Your task to perform on an android device: Go to accessibility settings Image 0: 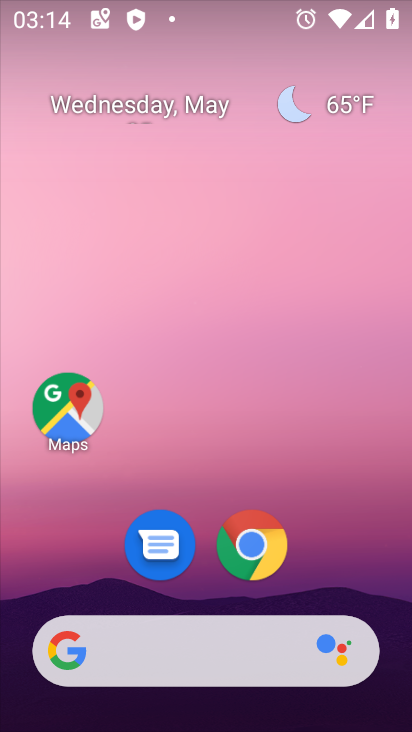
Step 0: drag from (362, 540) to (171, 79)
Your task to perform on an android device: Go to accessibility settings Image 1: 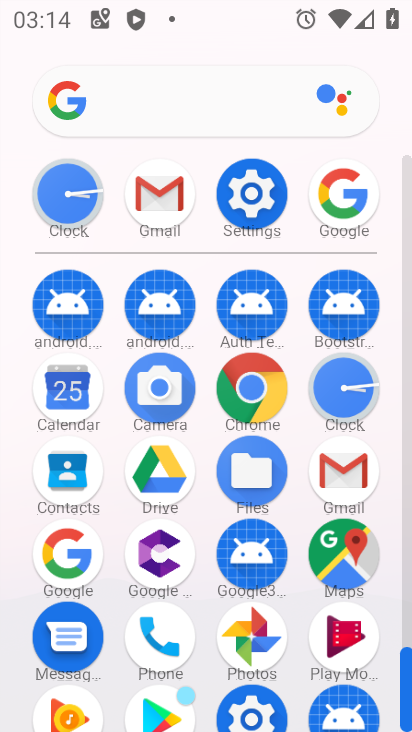
Step 1: click (253, 213)
Your task to perform on an android device: Go to accessibility settings Image 2: 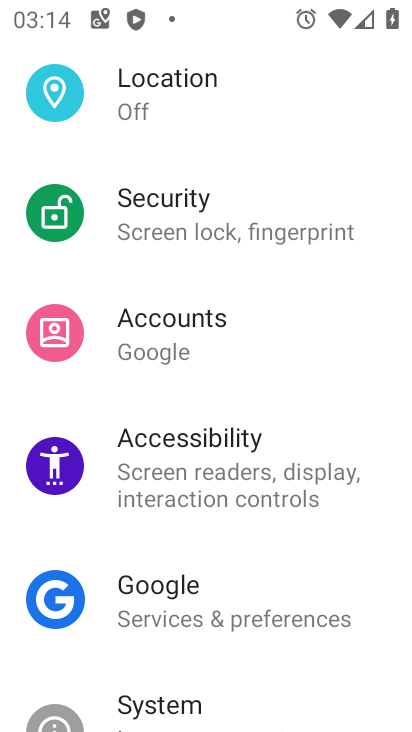
Step 2: click (246, 455)
Your task to perform on an android device: Go to accessibility settings Image 3: 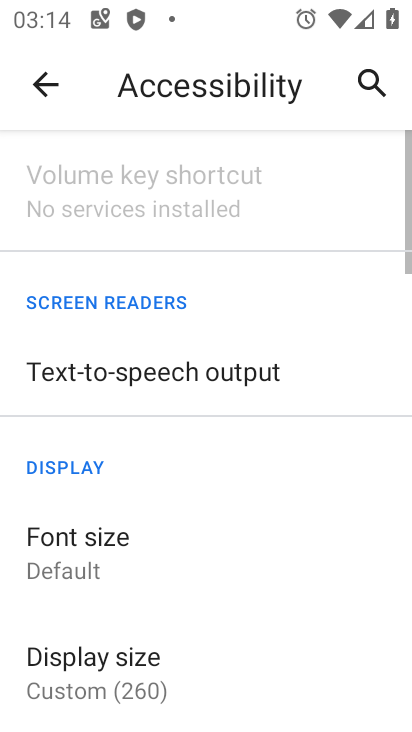
Step 3: task complete